Your task to perform on an android device: What's the weather going to be tomorrow? Image 0: 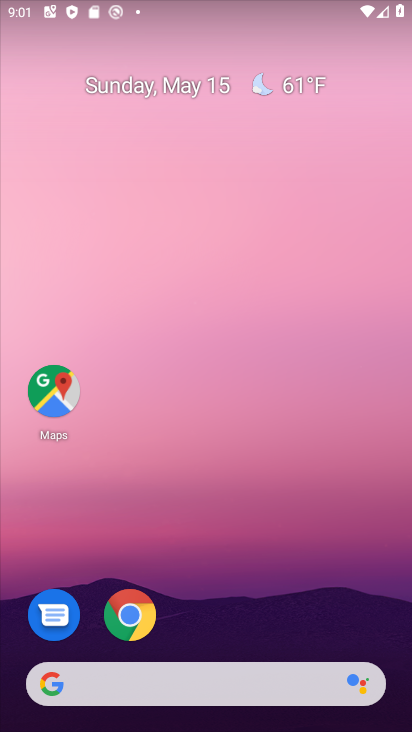
Step 0: drag from (248, 532) to (164, 23)
Your task to perform on an android device: What's the weather going to be tomorrow? Image 1: 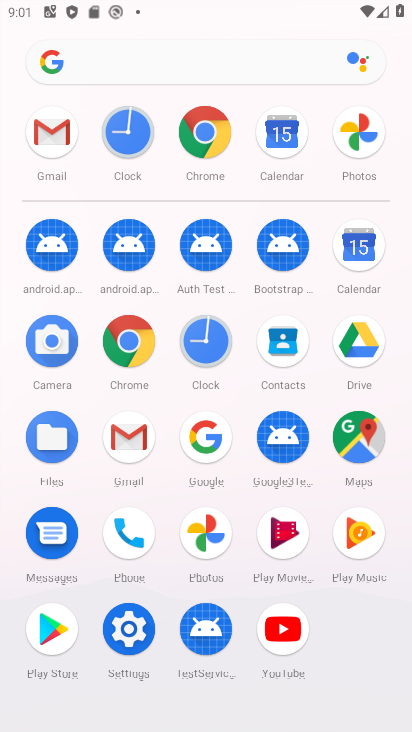
Step 1: drag from (0, 506) to (6, 292)
Your task to perform on an android device: What's the weather going to be tomorrow? Image 2: 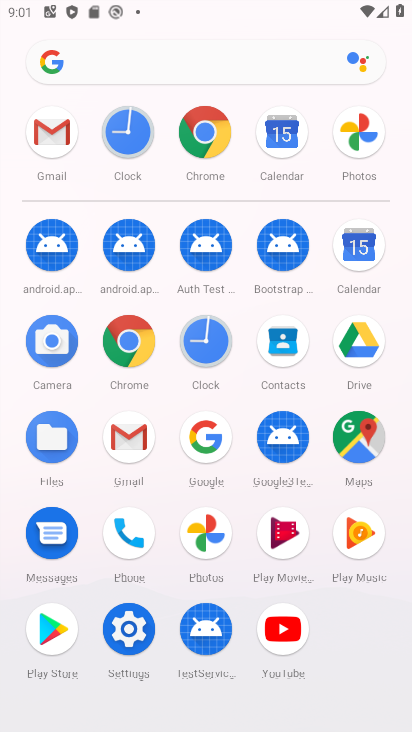
Step 2: click (122, 337)
Your task to perform on an android device: What's the weather going to be tomorrow? Image 3: 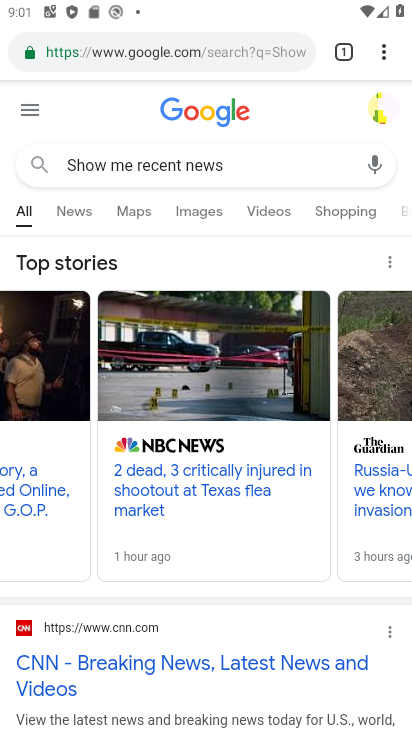
Step 3: click (228, 40)
Your task to perform on an android device: What's the weather going to be tomorrow? Image 4: 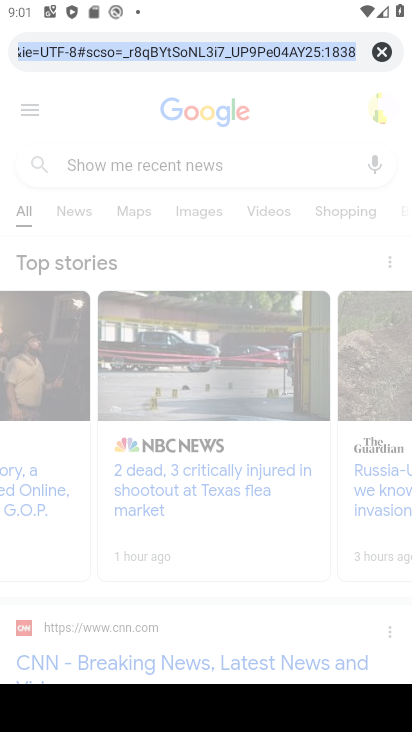
Step 4: click (385, 47)
Your task to perform on an android device: What's the weather going to be tomorrow? Image 5: 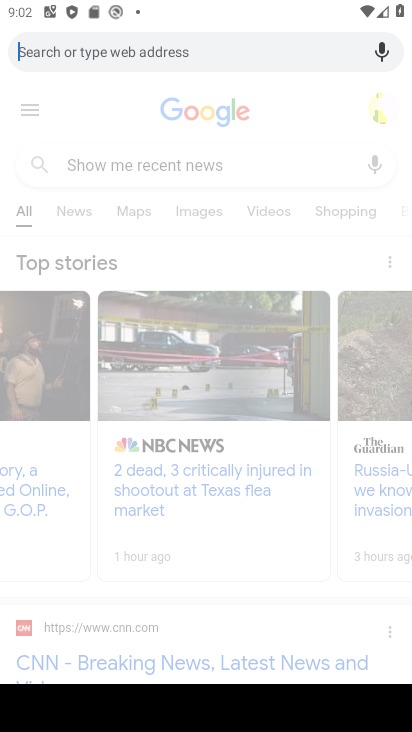
Step 5: type "What's the weather going to be tomorrow?"
Your task to perform on an android device: What's the weather going to be tomorrow? Image 6: 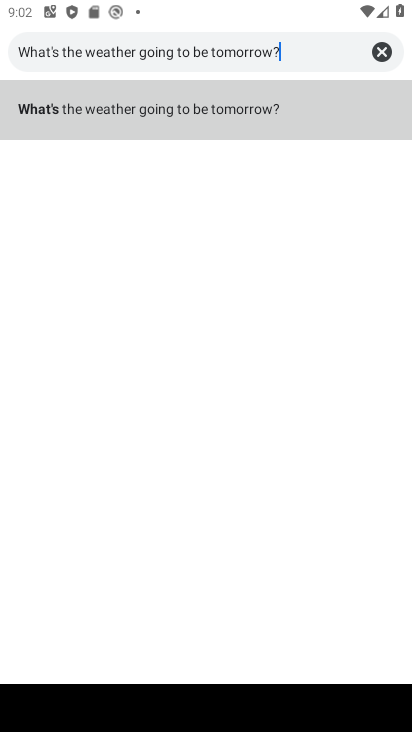
Step 6: click (170, 116)
Your task to perform on an android device: What's the weather going to be tomorrow? Image 7: 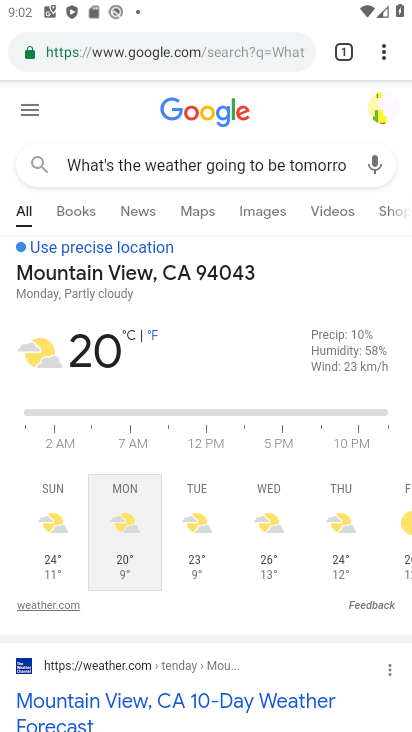
Step 7: task complete